Your task to perform on an android device: Go to Reddit.com Image 0: 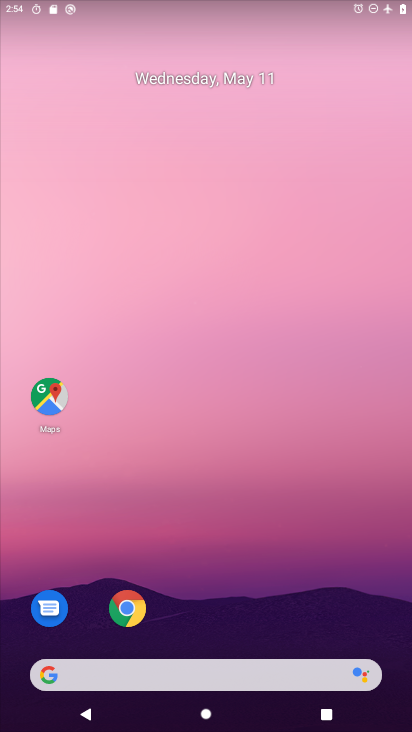
Step 0: drag from (247, 659) to (333, 43)
Your task to perform on an android device: Go to Reddit.com Image 1: 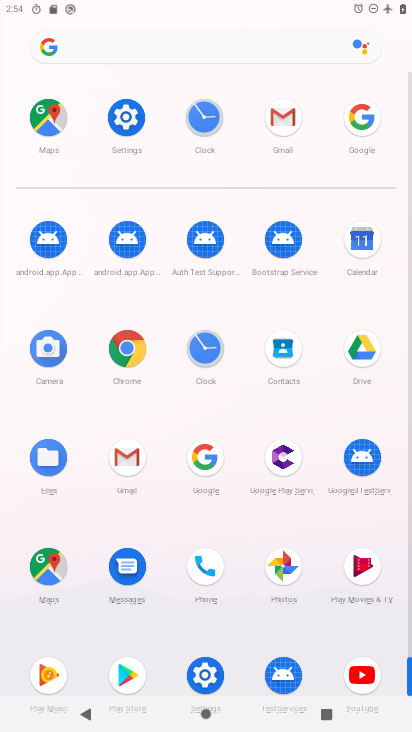
Step 1: click (124, 376)
Your task to perform on an android device: Go to Reddit.com Image 2: 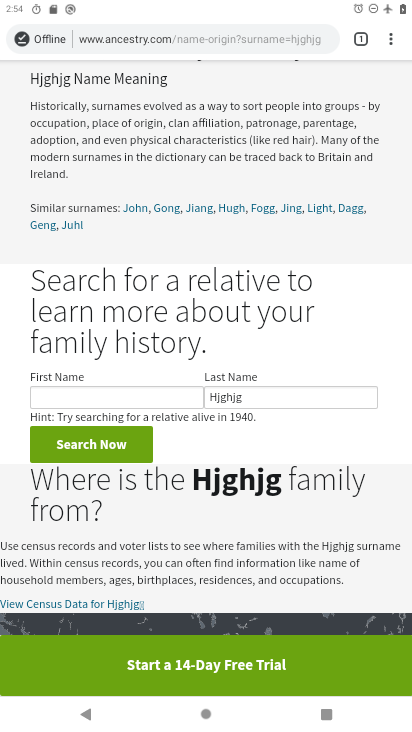
Step 2: click (204, 30)
Your task to perform on an android device: Go to Reddit.com Image 3: 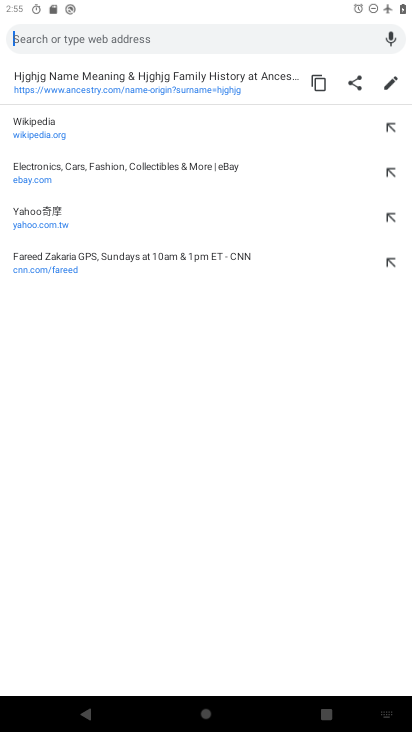
Step 3: type "reddit"
Your task to perform on an android device: Go to Reddit.com Image 4: 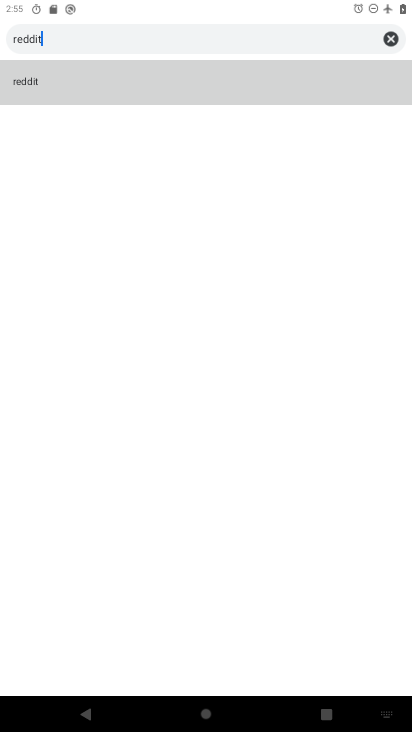
Step 4: click (261, 88)
Your task to perform on an android device: Go to Reddit.com Image 5: 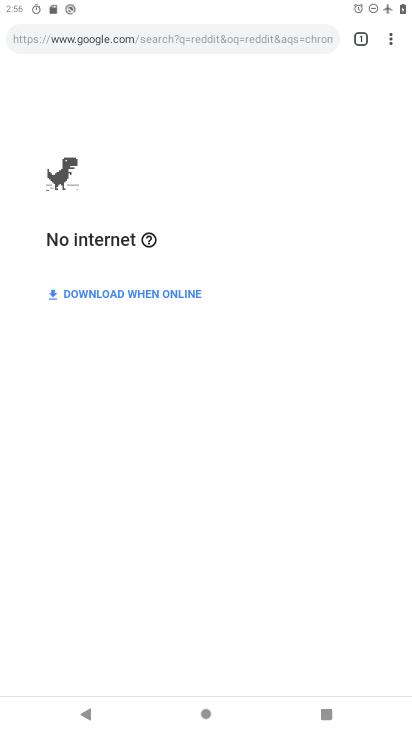
Step 5: task complete